Your task to perform on an android device: delete the emails in spam in the gmail app Image 0: 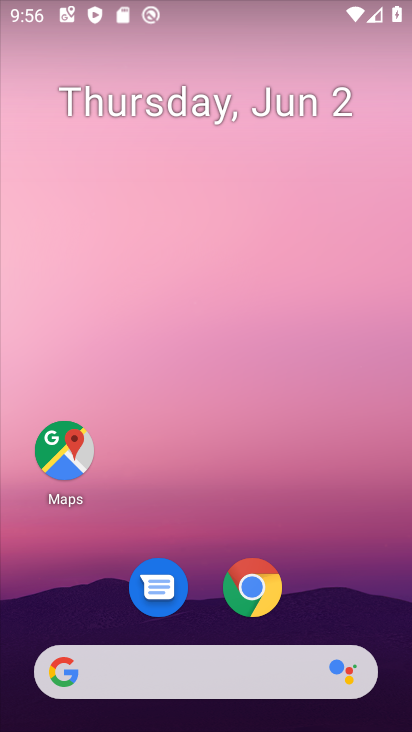
Step 0: drag from (322, 595) to (278, 217)
Your task to perform on an android device: delete the emails in spam in the gmail app Image 1: 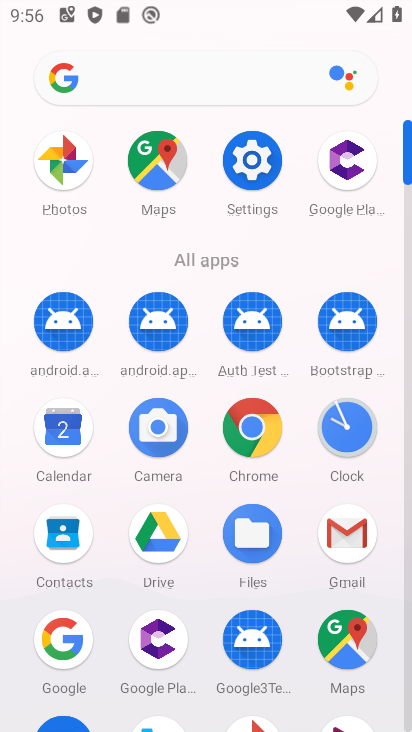
Step 1: click (367, 527)
Your task to perform on an android device: delete the emails in spam in the gmail app Image 2: 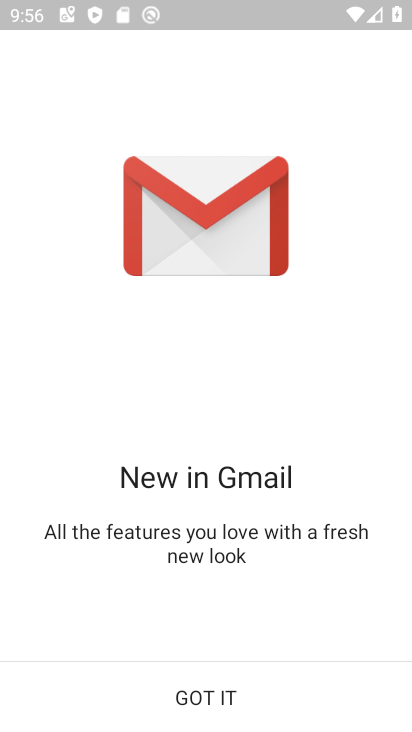
Step 2: click (270, 711)
Your task to perform on an android device: delete the emails in spam in the gmail app Image 3: 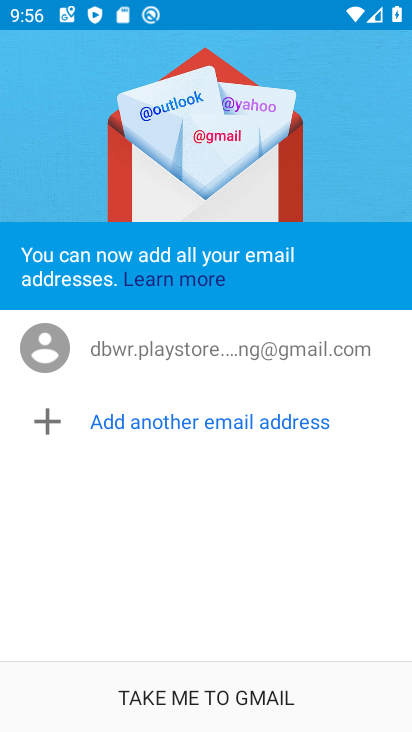
Step 3: click (342, 703)
Your task to perform on an android device: delete the emails in spam in the gmail app Image 4: 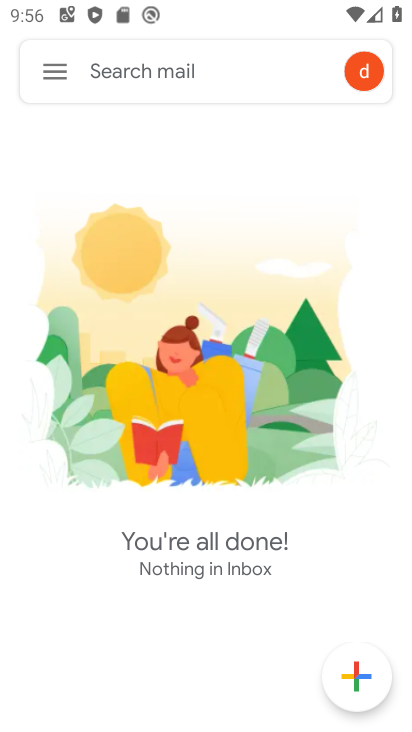
Step 4: click (52, 54)
Your task to perform on an android device: delete the emails in spam in the gmail app Image 5: 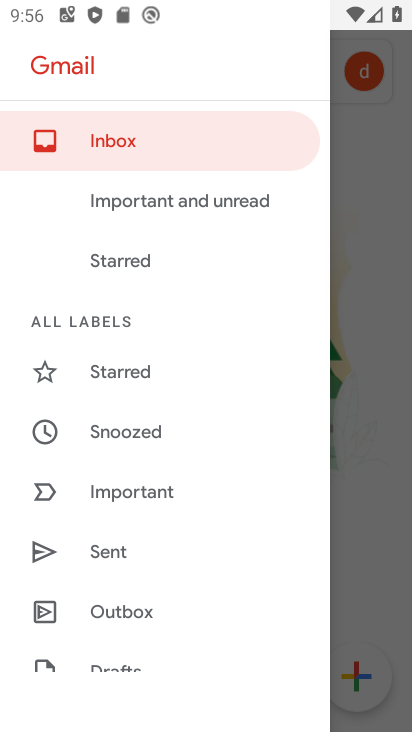
Step 5: drag from (139, 611) to (142, 413)
Your task to perform on an android device: delete the emails in spam in the gmail app Image 6: 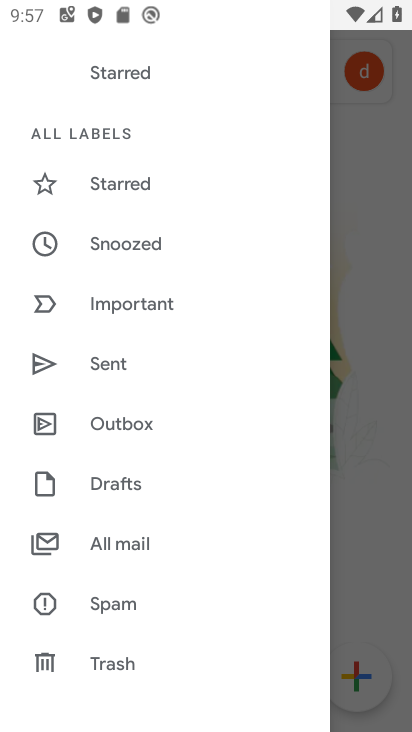
Step 6: click (139, 612)
Your task to perform on an android device: delete the emails in spam in the gmail app Image 7: 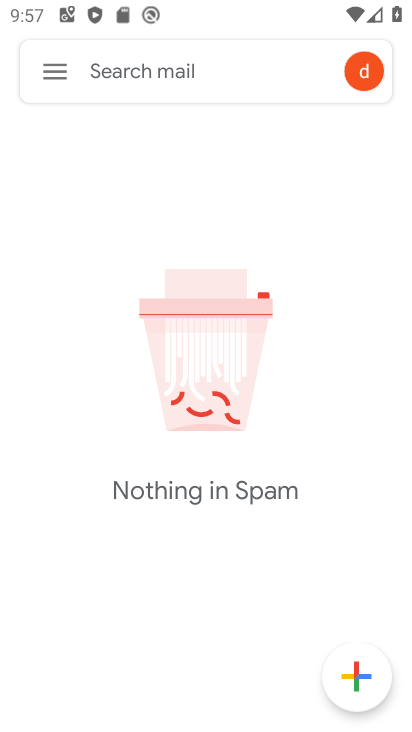
Step 7: task complete